Your task to perform on an android device: Clear all items from cart on walmart. Search for sony triple a on walmart, select the first entry, and add it to the cart. Image 0: 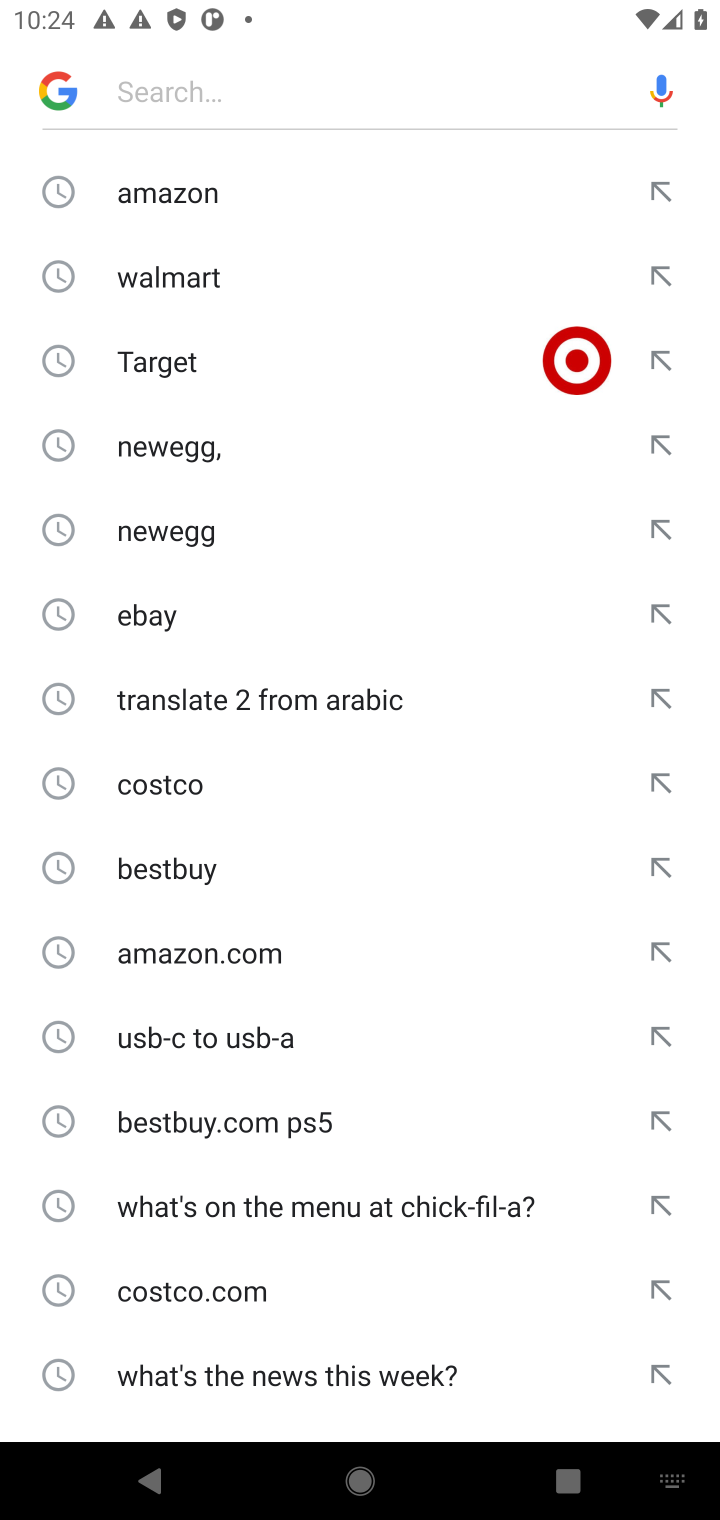
Step 0: click (148, 272)
Your task to perform on an android device: Clear all items from cart on walmart. Search for sony triple a on walmart, select the first entry, and add it to the cart. Image 1: 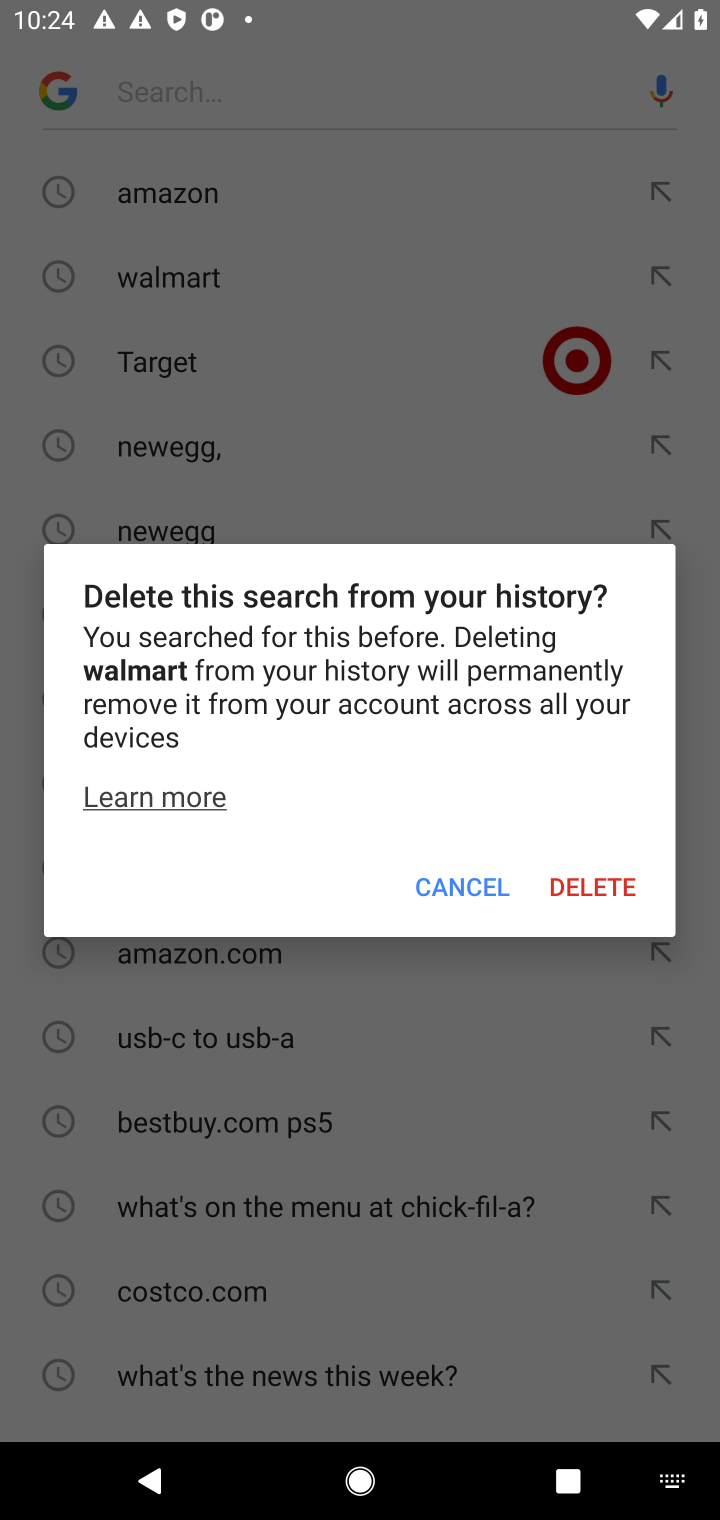
Step 1: click (147, 289)
Your task to perform on an android device: Clear all items from cart on walmart. Search for sony triple a on walmart, select the first entry, and add it to the cart. Image 2: 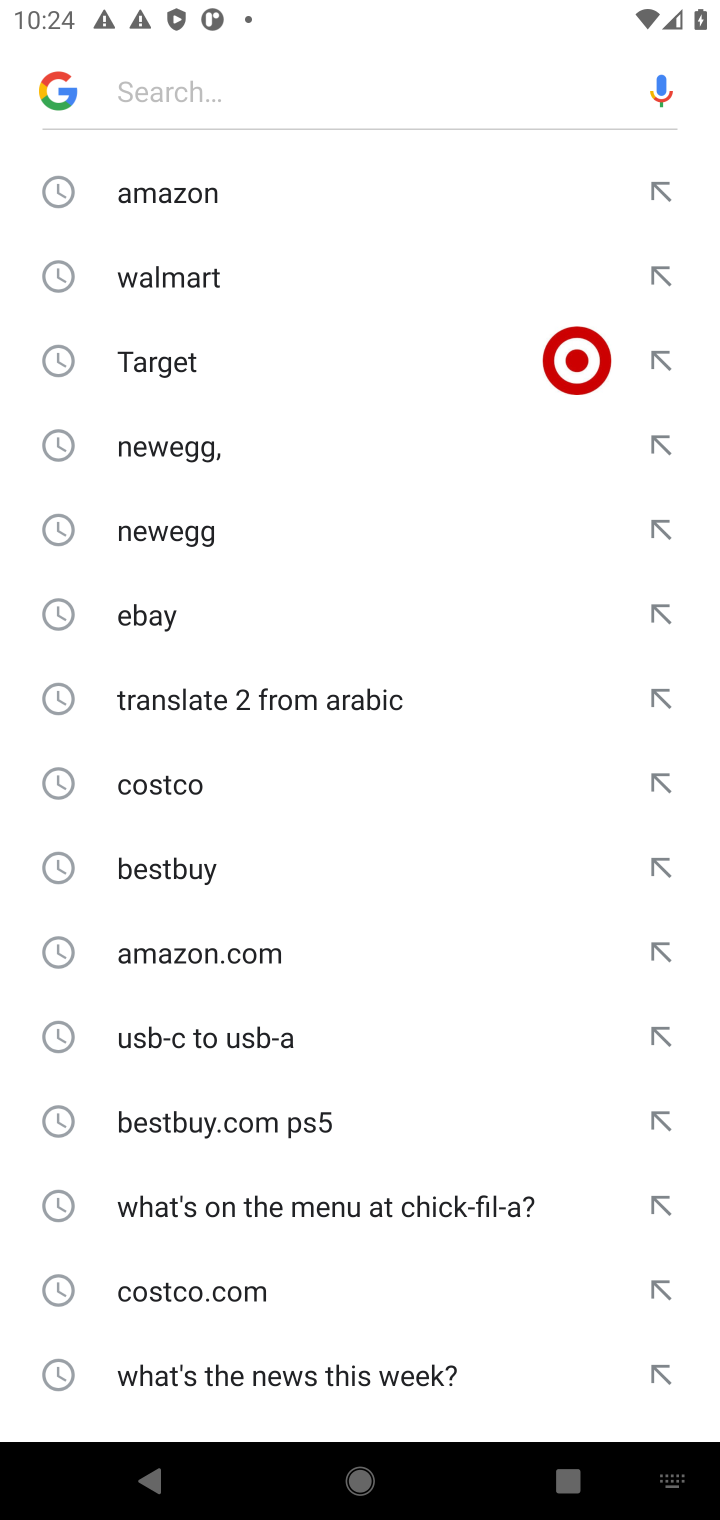
Step 2: click (155, 275)
Your task to perform on an android device: Clear all items from cart on walmart. Search for sony triple a on walmart, select the first entry, and add it to the cart. Image 3: 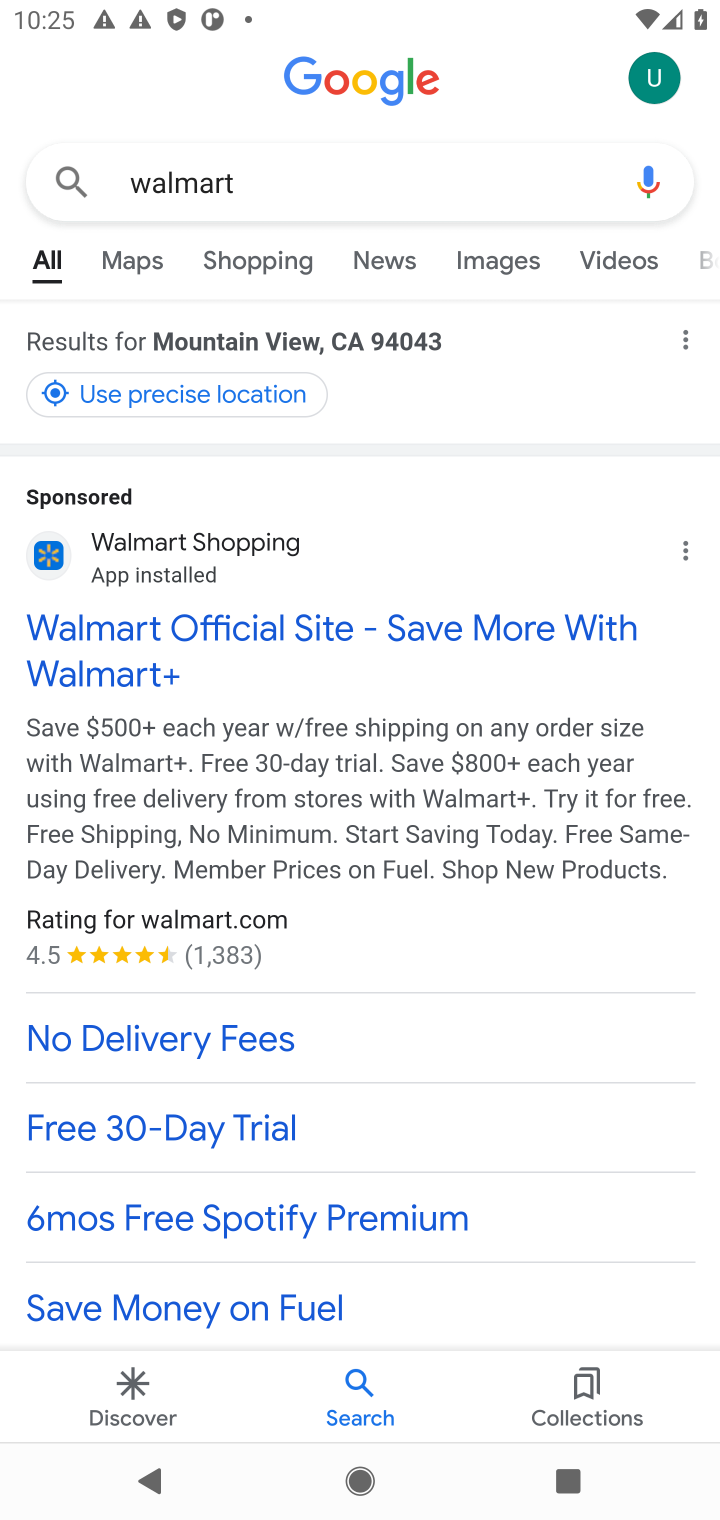
Step 3: click (238, 626)
Your task to perform on an android device: Clear all items from cart on walmart. Search for sony triple a on walmart, select the first entry, and add it to the cart. Image 4: 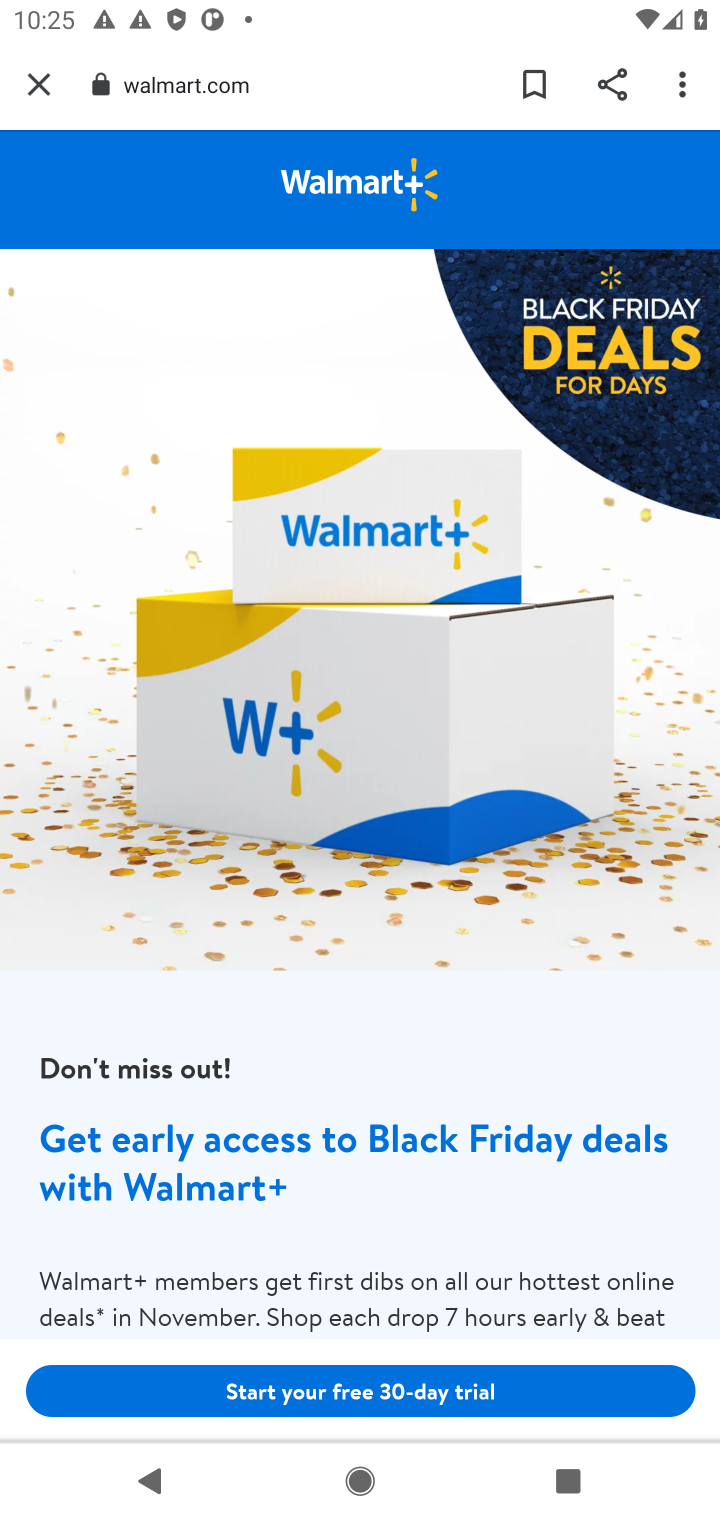
Step 4: press back button
Your task to perform on an android device: Clear all items from cart on walmart. Search for sony triple a on walmart, select the first entry, and add it to the cart. Image 5: 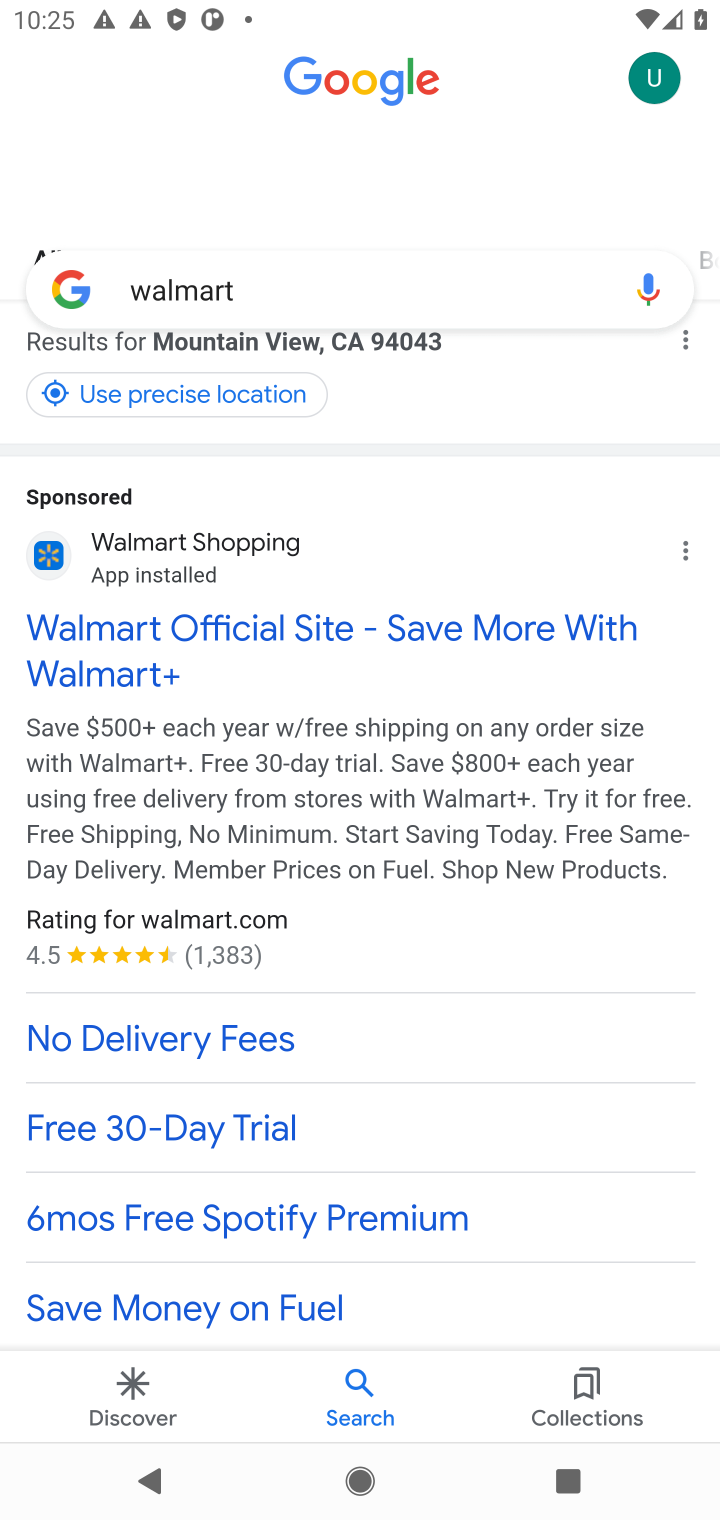
Step 5: drag from (322, 1086) to (639, 271)
Your task to perform on an android device: Clear all items from cart on walmart. Search for sony triple a on walmart, select the first entry, and add it to the cart. Image 6: 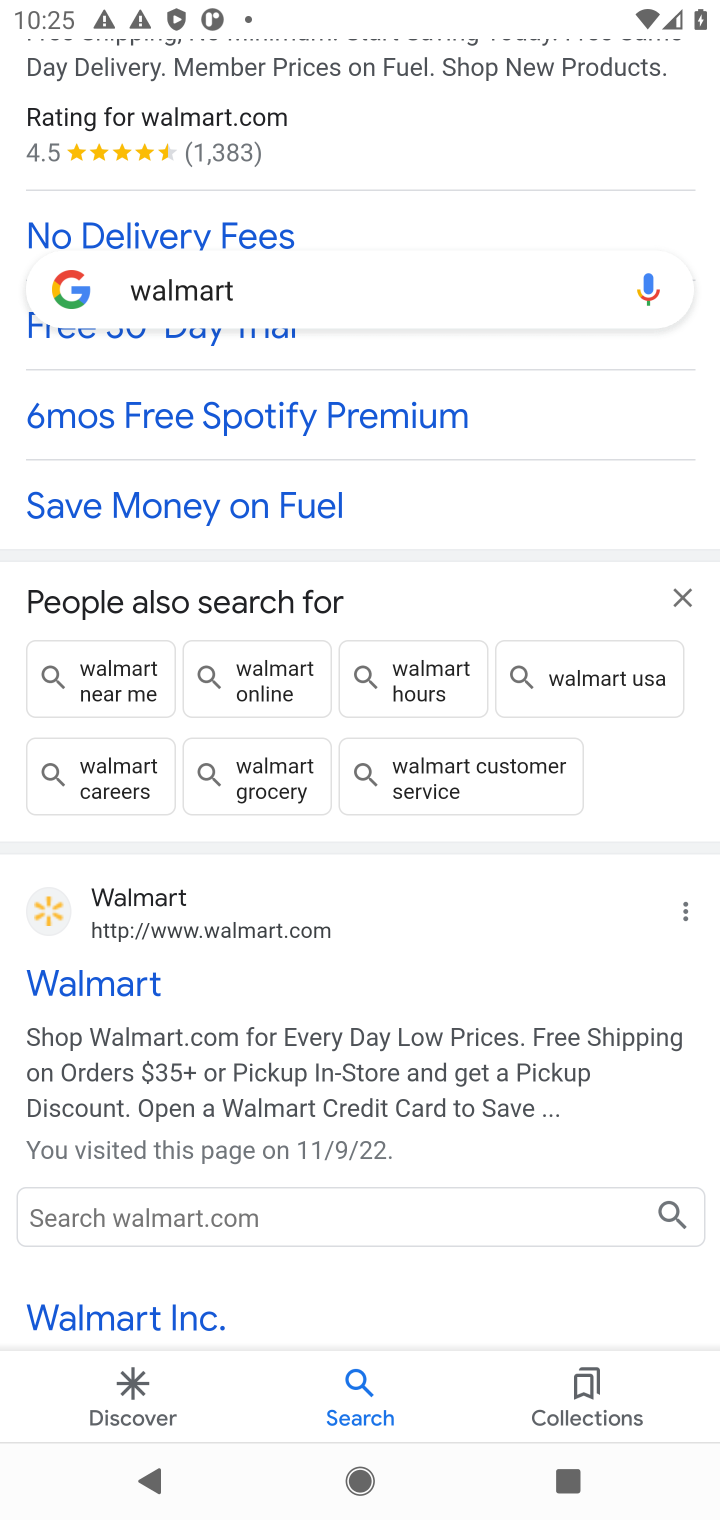
Step 6: click (85, 994)
Your task to perform on an android device: Clear all items from cart on walmart. Search for sony triple a on walmart, select the first entry, and add it to the cart. Image 7: 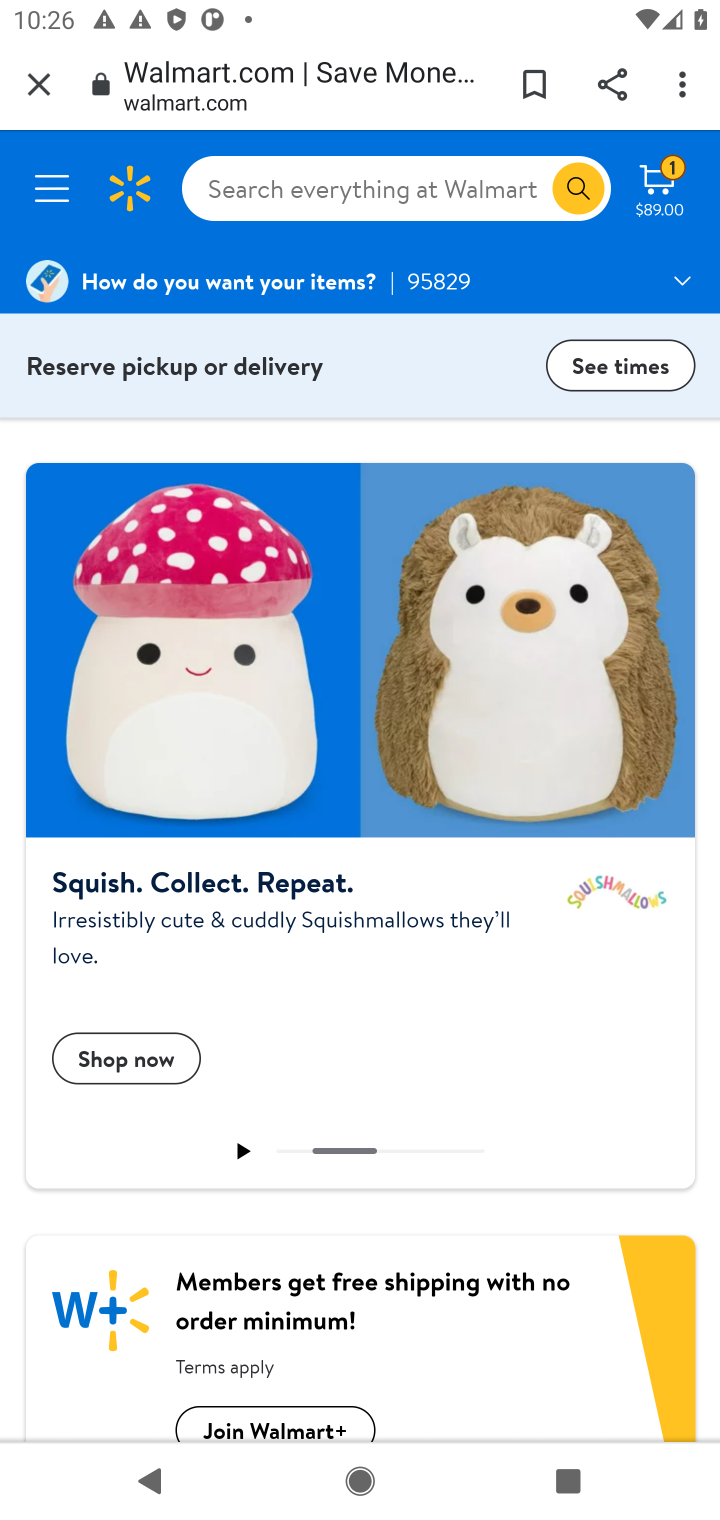
Step 7: click (463, 169)
Your task to perform on an android device: Clear all items from cart on walmart. Search for sony triple a on walmart, select the first entry, and add it to the cart. Image 8: 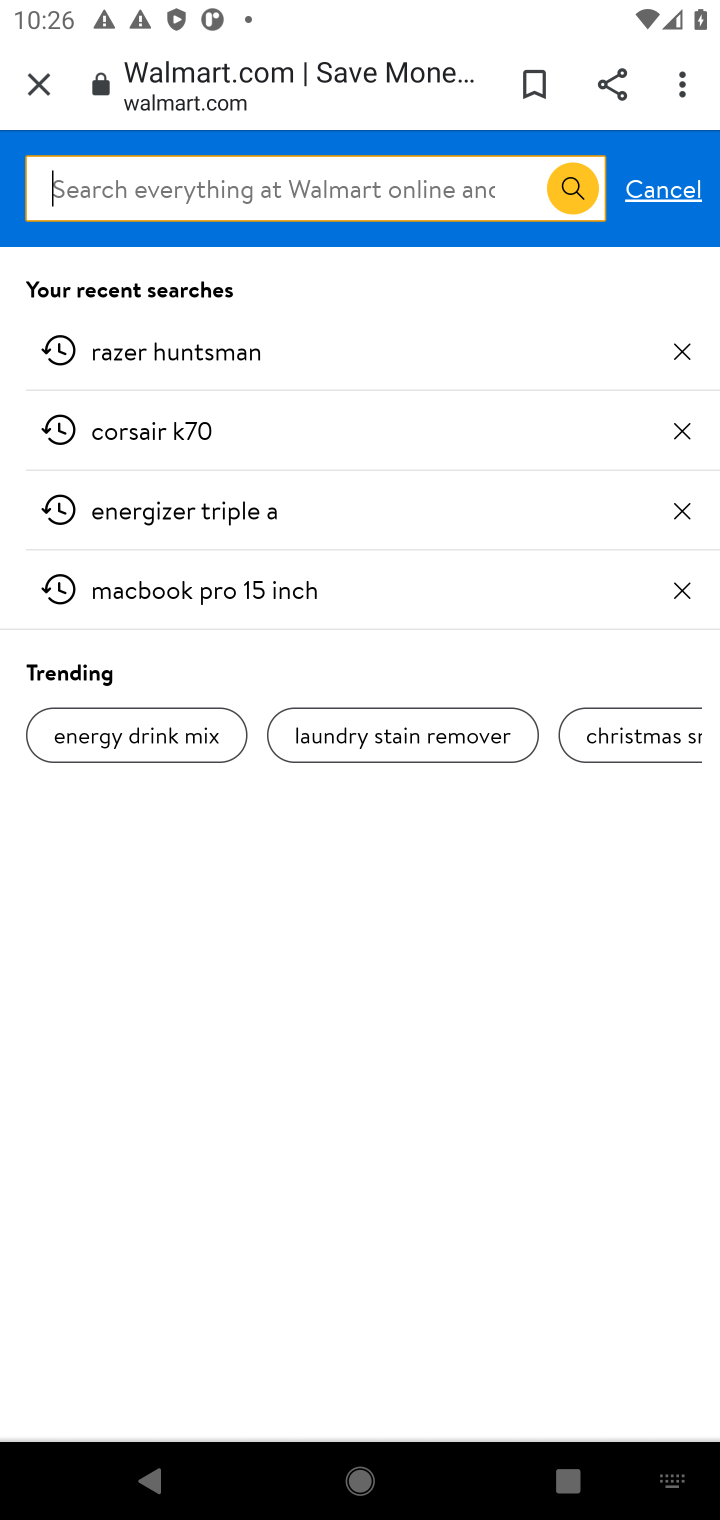
Step 8: type "sony triple a"
Your task to perform on an android device: Clear all items from cart on walmart. Search for sony triple a on walmart, select the first entry, and add it to the cart. Image 9: 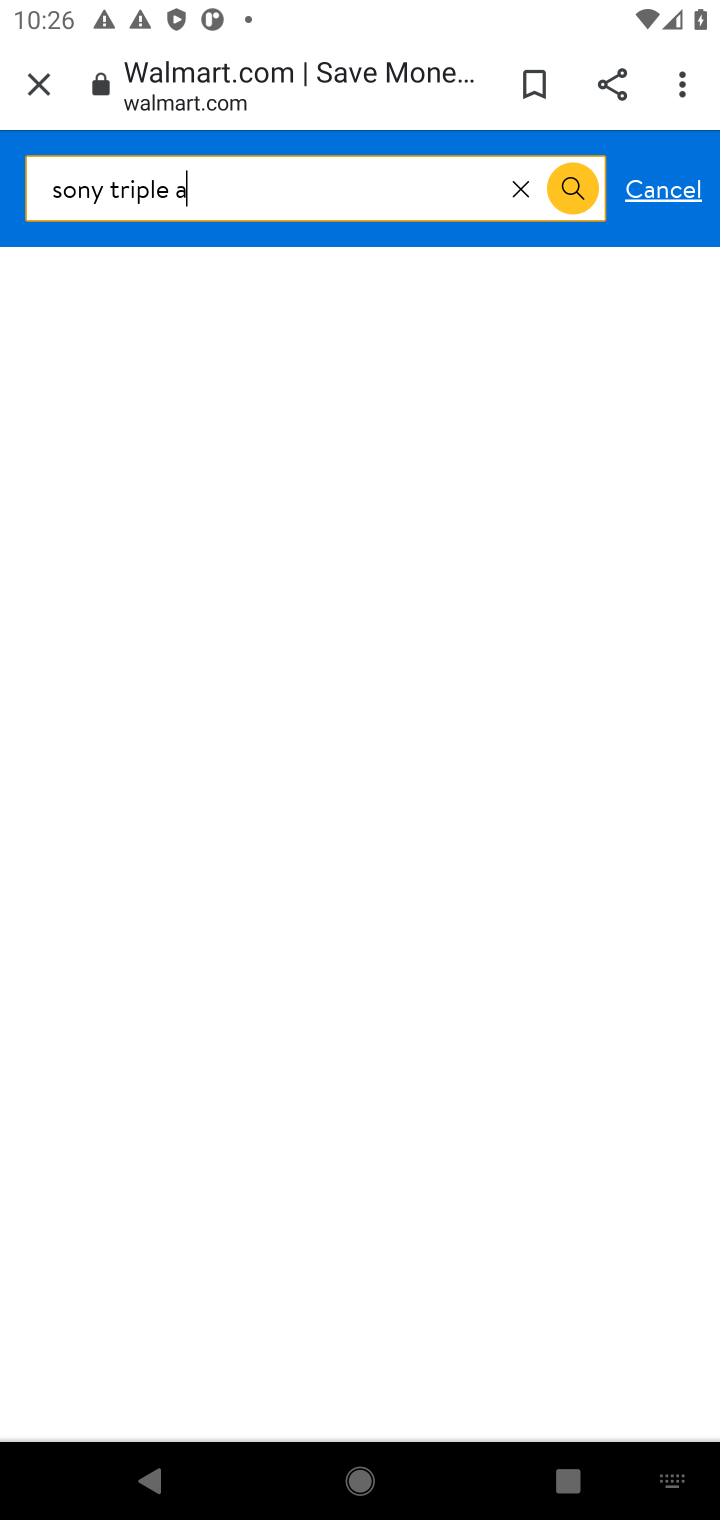
Step 9: press enter
Your task to perform on an android device: Clear all items from cart on walmart. Search for sony triple a on walmart, select the first entry, and add it to the cart. Image 10: 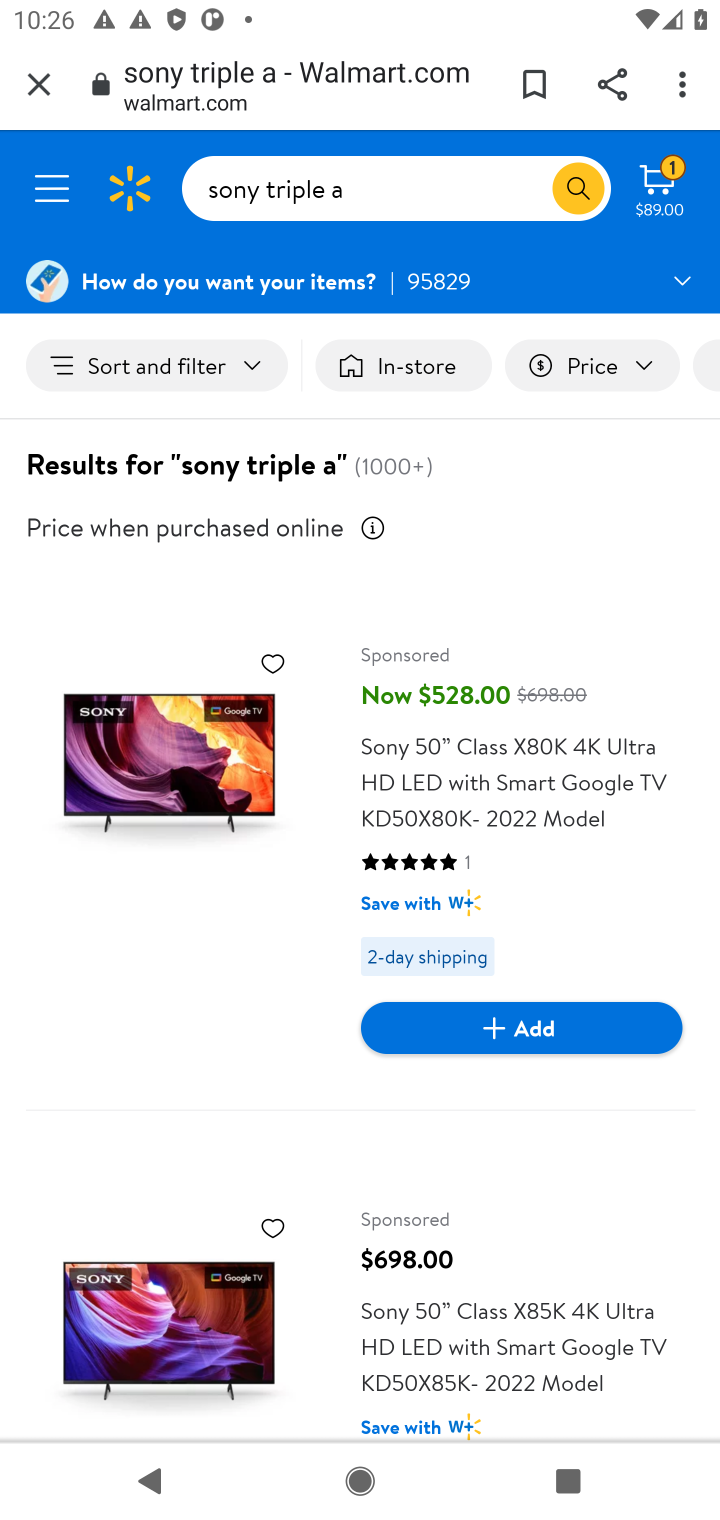
Step 10: task complete